Your task to perform on an android device: What's the weather going to be tomorrow? Image 0: 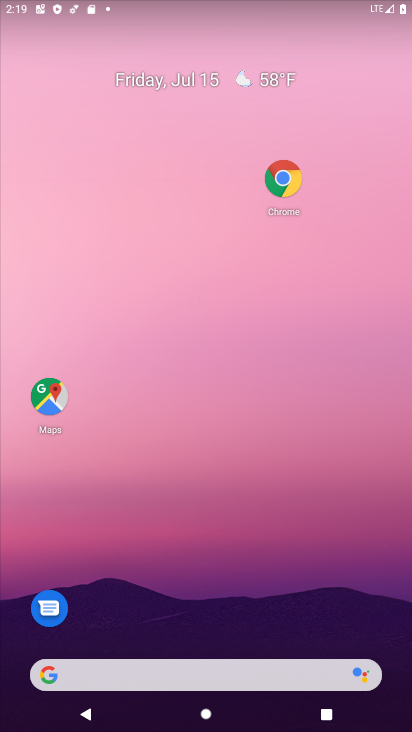
Step 0: drag from (208, 598) to (211, 76)
Your task to perform on an android device: What's the weather going to be tomorrow? Image 1: 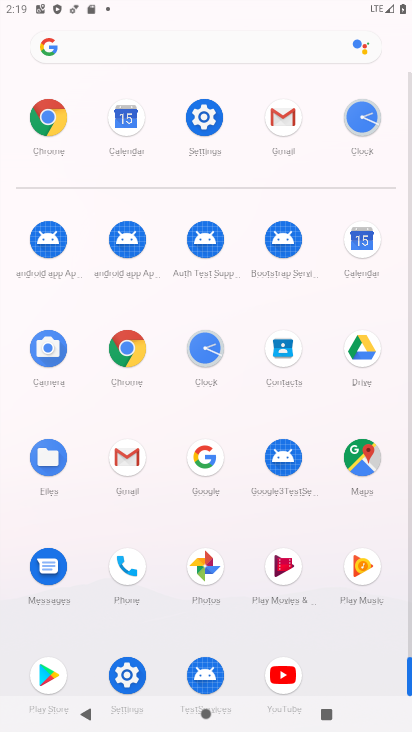
Step 1: click (115, 354)
Your task to perform on an android device: What's the weather going to be tomorrow? Image 2: 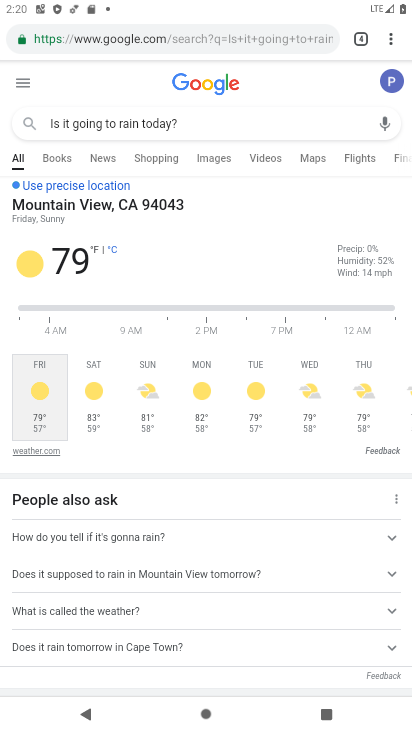
Step 2: click (134, 33)
Your task to perform on an android device: What's the weather going to be tomorrow? Image 3: 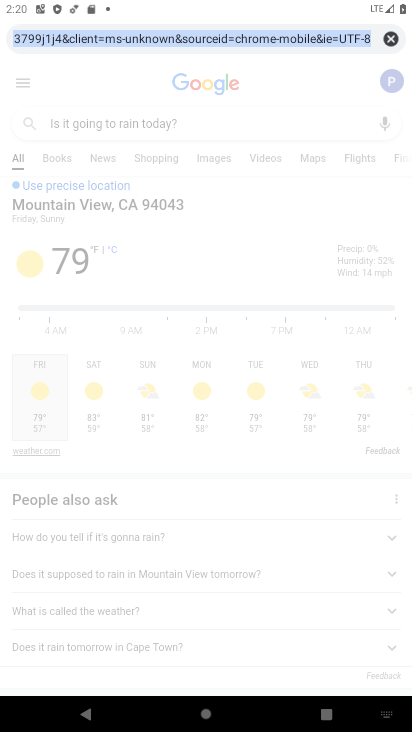
Step 3: click (388, 32)
Your task to perform on an android device: What's the weather going to be tomorrow? Image 4: 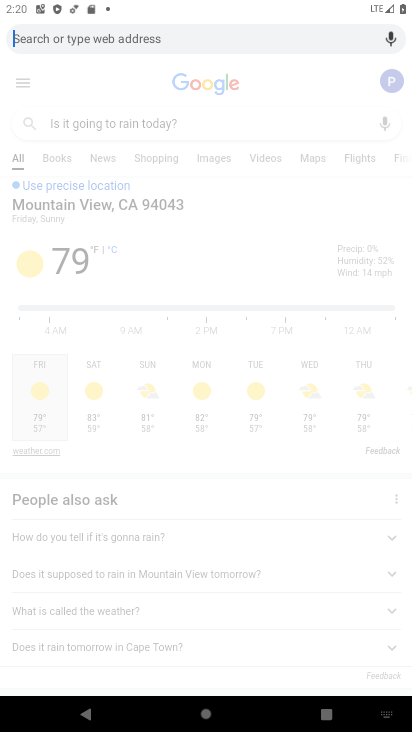
Step 4: type "What's the weather going to be tomorrow?"
Your task to perform on an android device: What's the weather going to be tomorrow? Image 5: 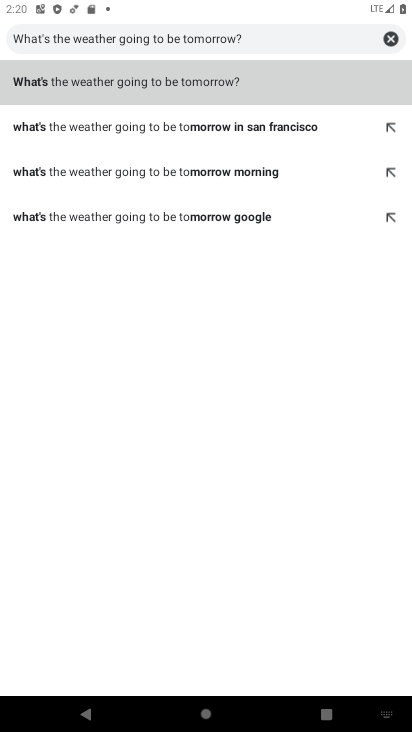
Step 5: click (88, 79)
Your task to perform on an android device: What's the weather going to be tomorrow? Image 6: 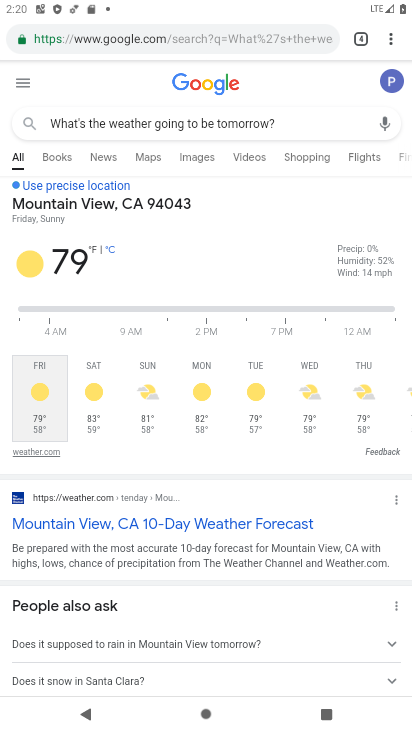
Step 6: task complete